Your task to perform on an android device: View the shopping cart on amazon. Add "asus rog" to the cart on amazon, then select checkout. Image 0: 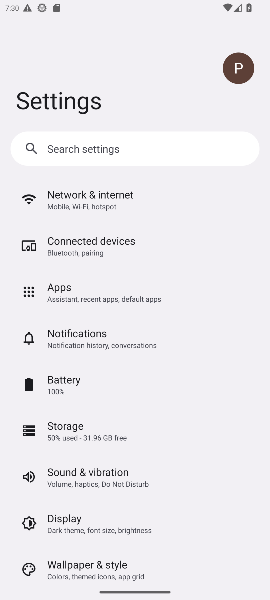
Step 0: press home button
Your task to perform on an android device: View the shopping cart on amazon. Add "asus rog" to the cart on amazon, then select checkout. Image 1: 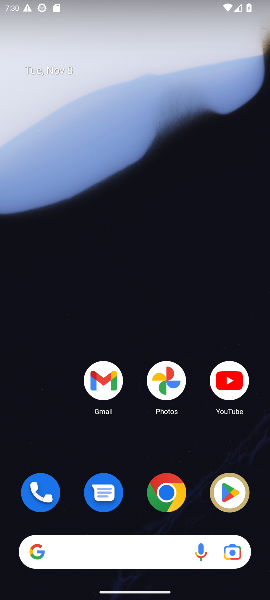
Step 1: click (161, 497)
Your task to perform on an android device: View the shopping cart on amazon. Add "asus rog" to the cart on amazon, then select checkout. Image 2: 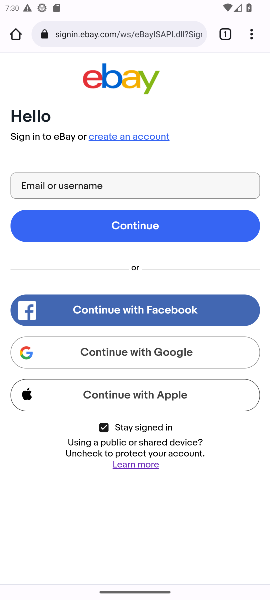
Step 2: click (89, 34)
Your task to perform on an android device: View the shopping cart on amazon. Add "asus rog" to the cart on amazon, then select checkout. Image 3: 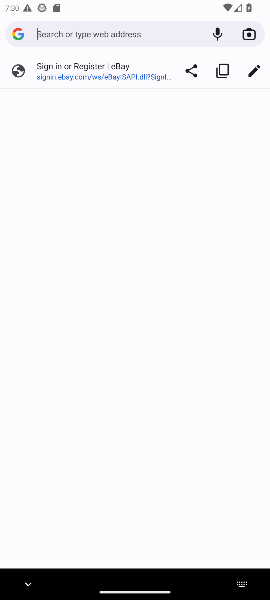
Step 3: type "amazon"
Your task to perform on an android device: View the shopping cart on amazon. Add "asus rog" to the cart on amazon, then select checkout. Image 4: 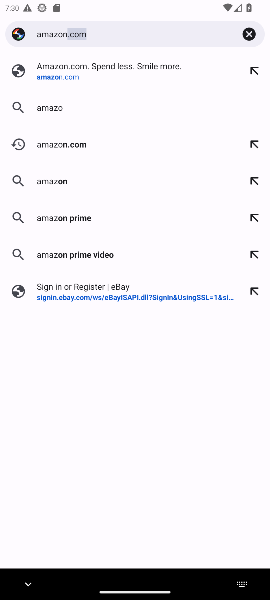
Step 4: press enter
Your task to perform on an android device: View the shopping cart on amazon. Add "asus rog" to the cart on amazon, then select checkout. Image 5: 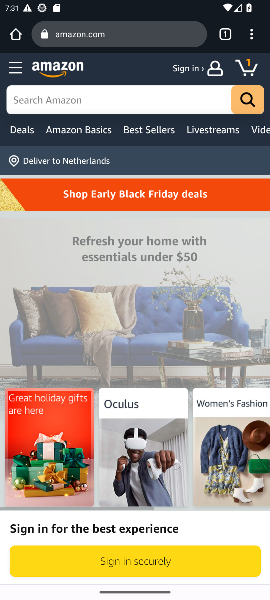
Step 5: click (249, 70)
Your task to perform on an android device: View the shopping cart on amazon. Add "asus rog" to the cart on amazon, then select checkout. Image 6: 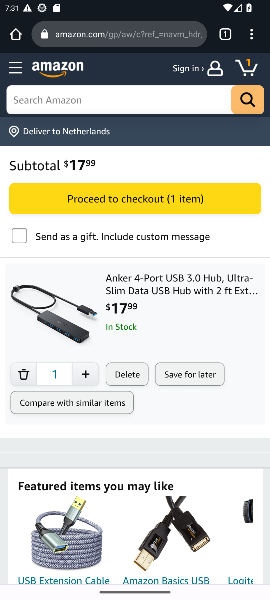
Step 6: click (132, 99)
Your task to perform on an android device: View the shopping cart on amazon. Add "asus rog" to the cart on amazon, then select checkout. Image 7: 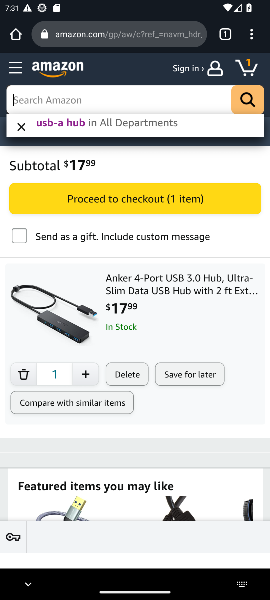
Step 7: type "asus rog"
Your task to perform on an android device: View the shopping cart on amazon. Add "asus rog" to the cart on amazon, then select checkout. Image 8: 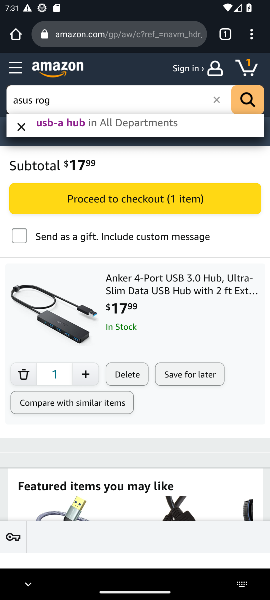
Step 8: press enter
Your task to perform on an android device: View the shopping cart on amazon. Add "asus rog" to the cart on amazon, then select checkout. Image 9: 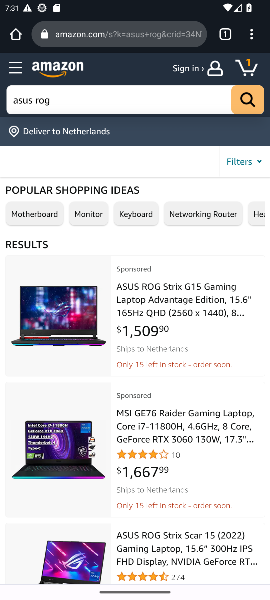
Step 9: click (39, 319)
Your task to perform on an android device: View the shopping cart on amazon. Add "asus rog" to the cart on amazon, then select checkout. Image 10: 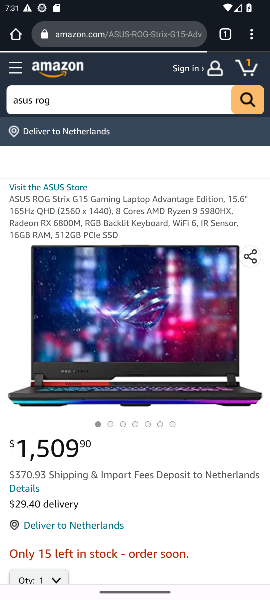
Step 10: drag from (209, 436) to (198, 208)
Your task to perform on an android device: View the shopping cart on amazon. Add "asus rog" to the cart on amazon, then select checkout. Image 11: 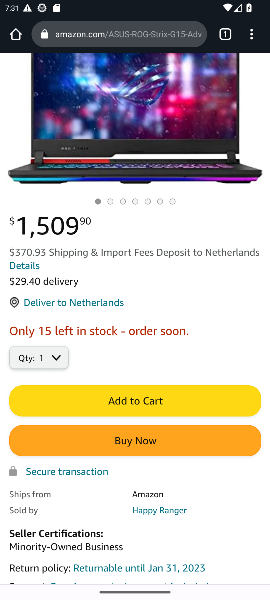
Step 11: click (160, 401)
Your task to perform on an android device: View the shopping cart on amazon. Add "asus rog" to the cart on amazon, then select checkout. Image 12: 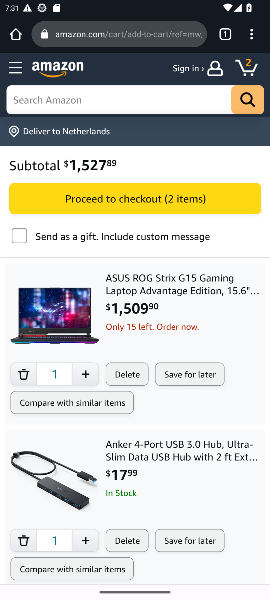
Step 12: click (129, 196)
Your task to perform on an android device: View the shopping cart on amazon. Add "asus rog" to the cart on amazon, then select checkout. Image 13: 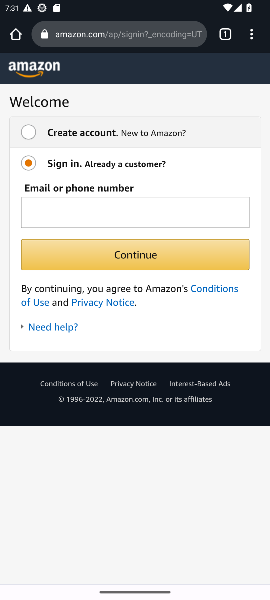
Step 13: task complete